Your task to perform on an android device: Search for seafood restaurants on Google Maps Image 0: 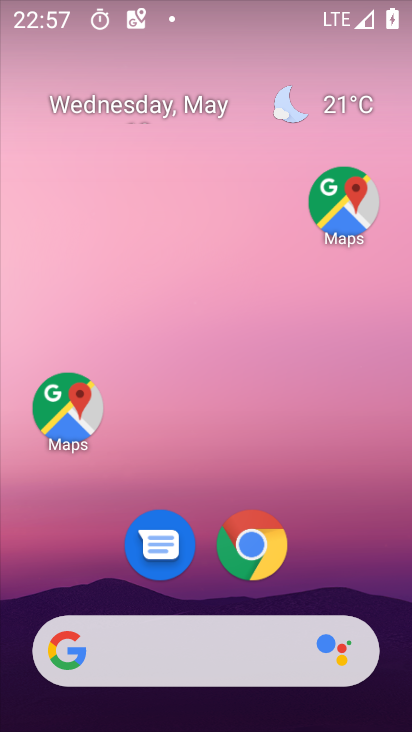
Step 0: drag from (327, 540) to (308, 180)
Your task to perform on an android device: Search for seafood restaurants on Google Maps Image 1: 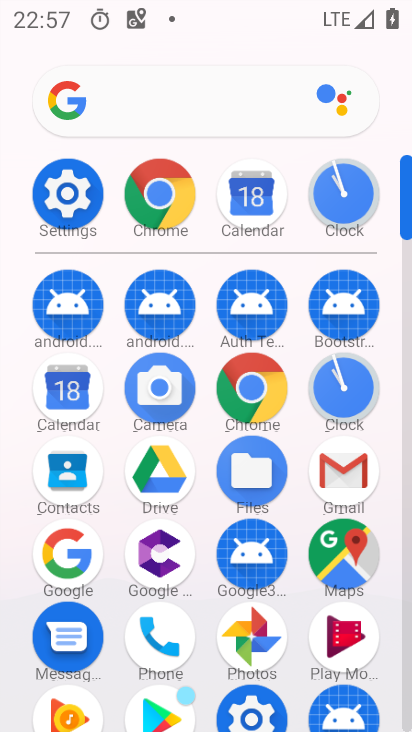
Step 1: click (347, 562)
Your task to perform on an android device: Search for seafood restaurants on Google Maps Image 2: 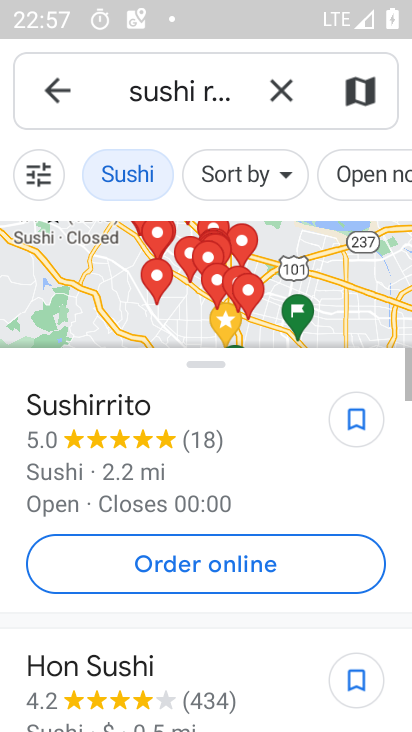
Step 2: click (278, 101)
Your task to perform on an android device: Search for seafood restaurants on Google Maps Image 3: 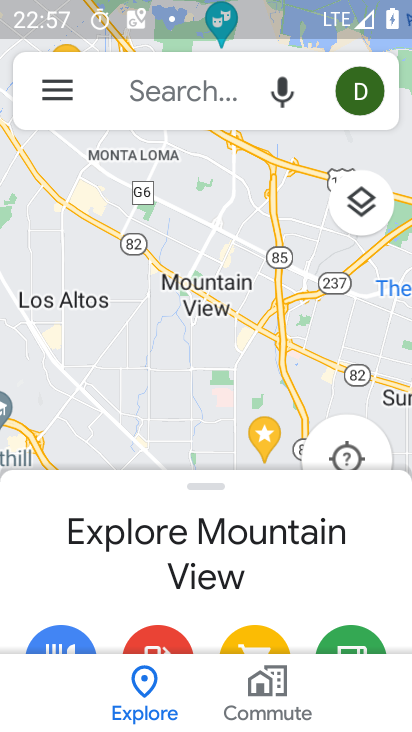
Step 3: click (200, 86)
Your task to perform on an android device: Search for seafood restaurants on Google Maps Image 4: 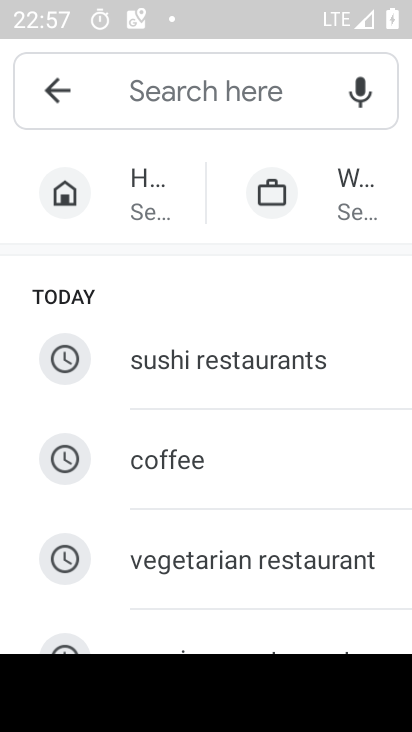
Step 4: type "seafood restaurants"
Your task to perform on an android device: Search for seafood restaurants on Google Maps Image 5: 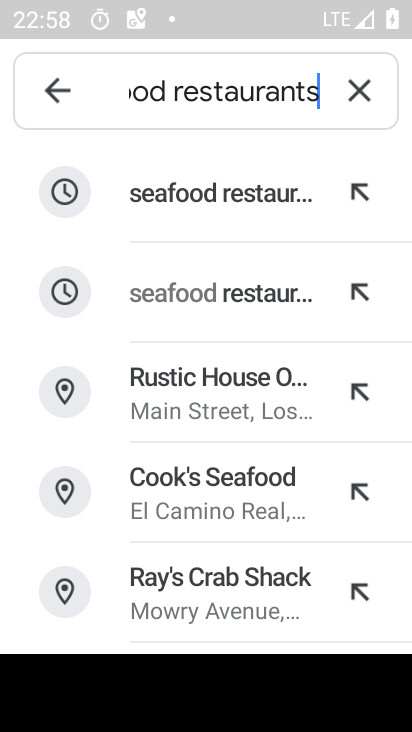
Step 5: click (172, 181)
Your task to perform on an android device: Search for seafood restaurants on Google Maps Image 6: 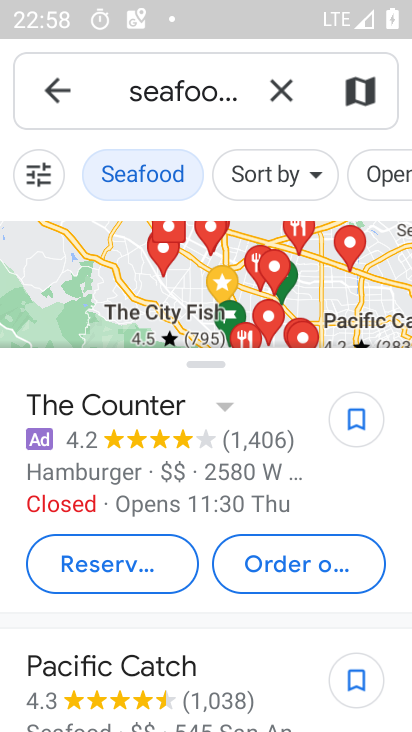
Step 6: task complete